Your task to perform on an android device: Find coffee shops on Maps Image 0: 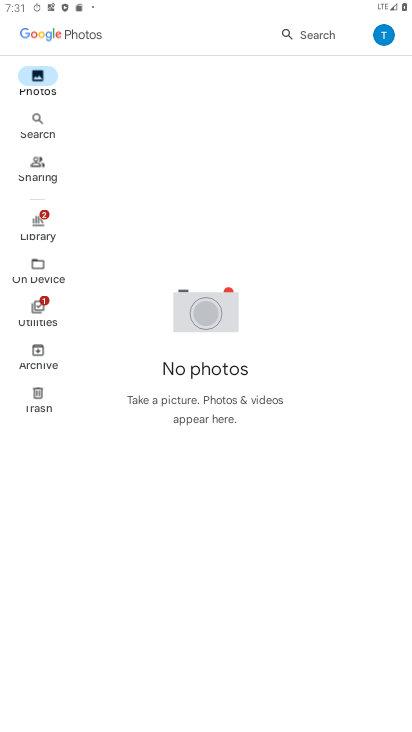
Step 0: press home button
Your task to perform on an android device: Find coffee shops on Maps Image 1: 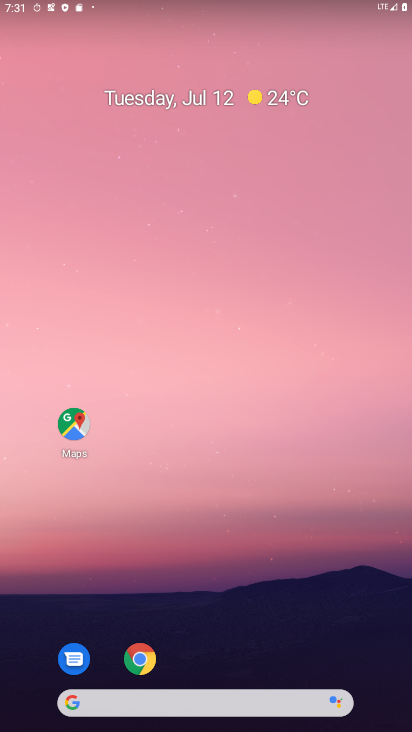
Step 1: drag from (361, 682) to (146, 81)
Your task to perform on an android device: Find coffee shops on Maps Image 2: 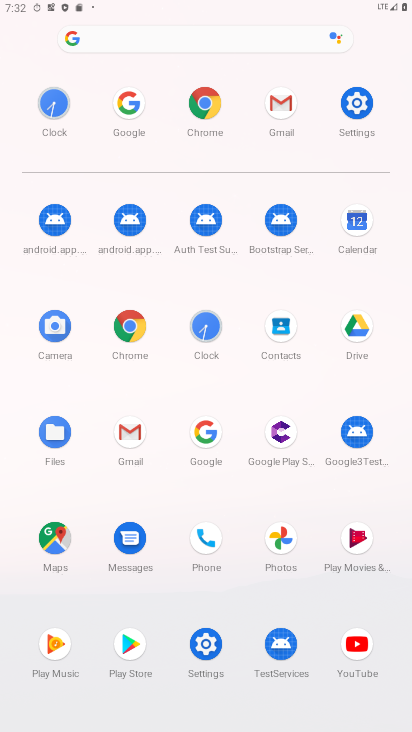
Step 2: click (52, 544)
Your task to perform on an android device: Find coffee shops on Maps Image 3: 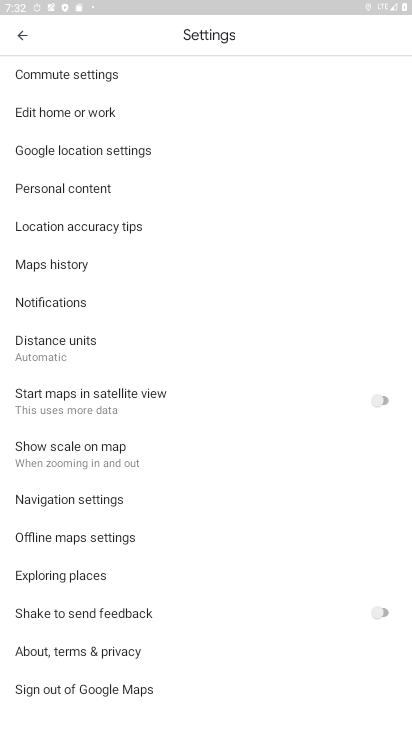
Step 3: press back button
Your task to perform on an android device: Find coffee shops on Maps Image 4: 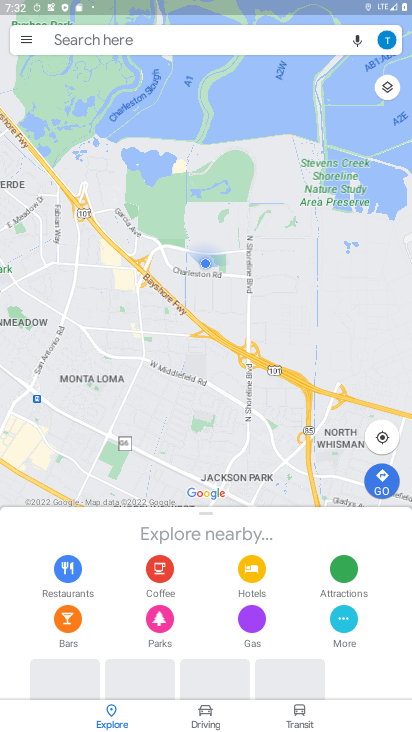
Step 4: click (107, 45)
Your task to perform on an android device: Find coffee shops on Maps Image 5: 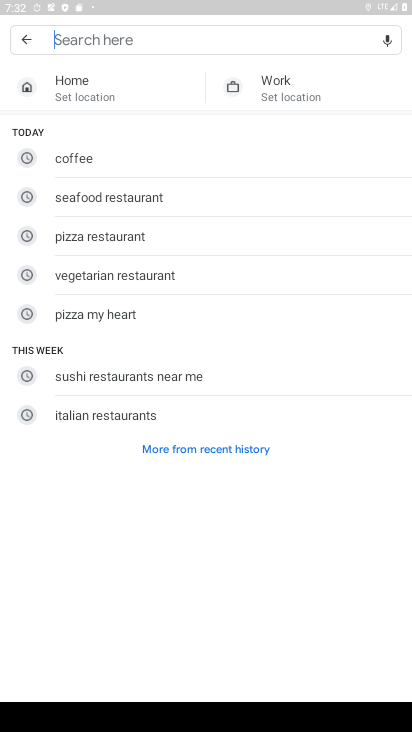
Step 5: click (80, 155)
Your task to perform on an android device: Find coffee shops on Maps Image 6: 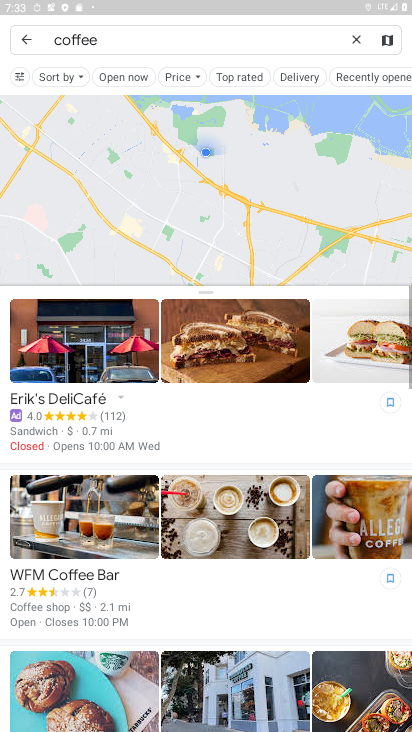
Step 6: task complete